Your task to perform on an android device: Open maps Image 0: 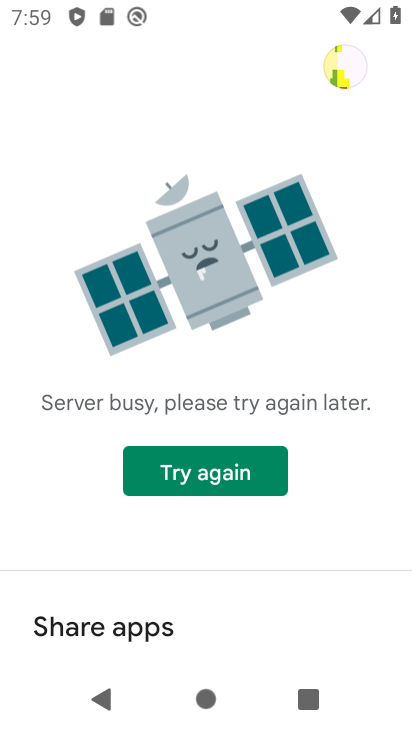
Step 0: press back button
Your task to perform on an android device: Open maps Image 1: 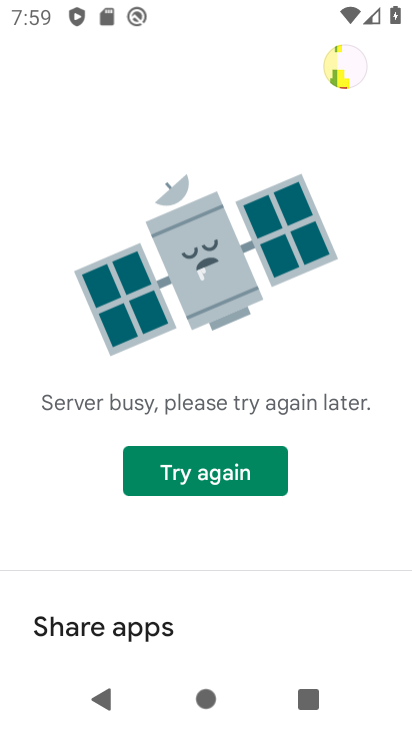
Step 1: press back button
Your task to perform on an android device: Open maps Image 2: 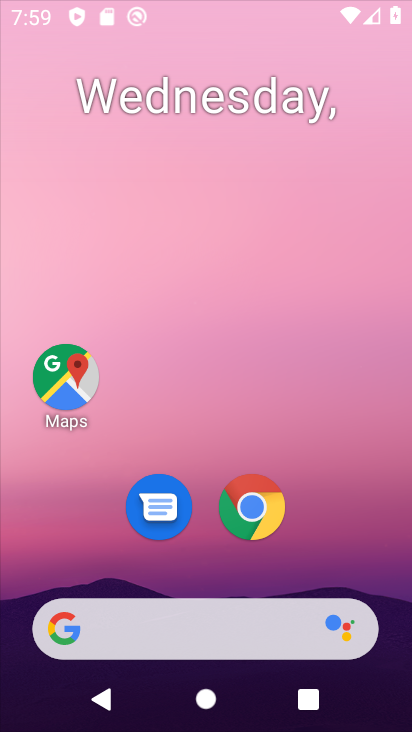
Step 2: press back button
Your task to perform on an android device: Open maps Image 3: 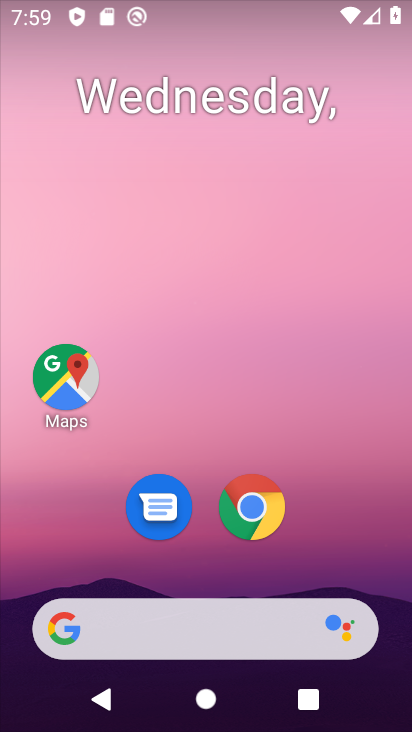
Step 3: press back button
Your task to perform on an android device: Open maps Image 4: 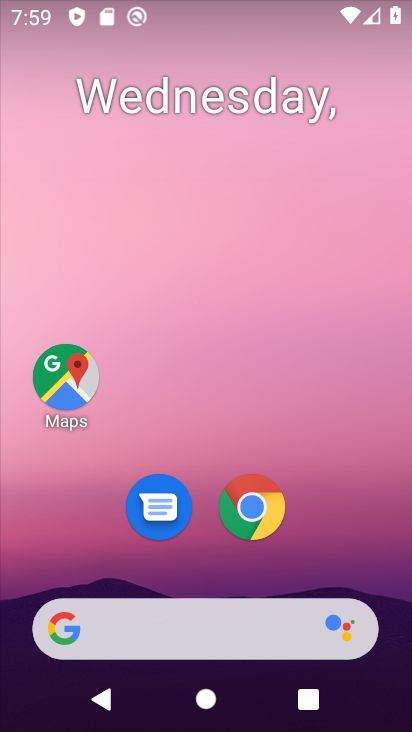
Step 4: click (79, 388)
Your task to perform on an android device: Open maps Image 5: 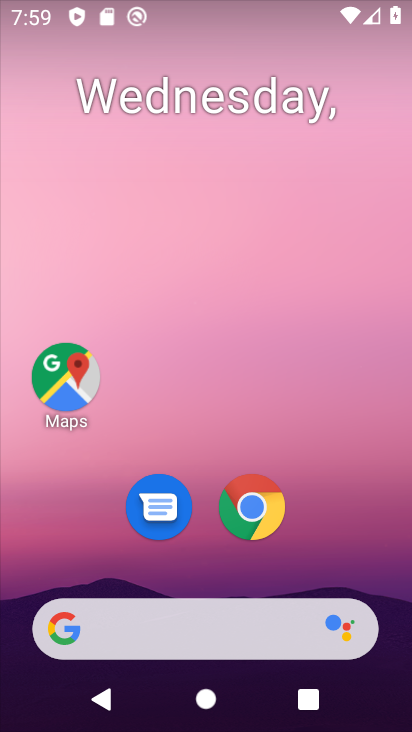
Step 5: click (79, 381)
Your task to perform on an android device: Open maps Image 6: 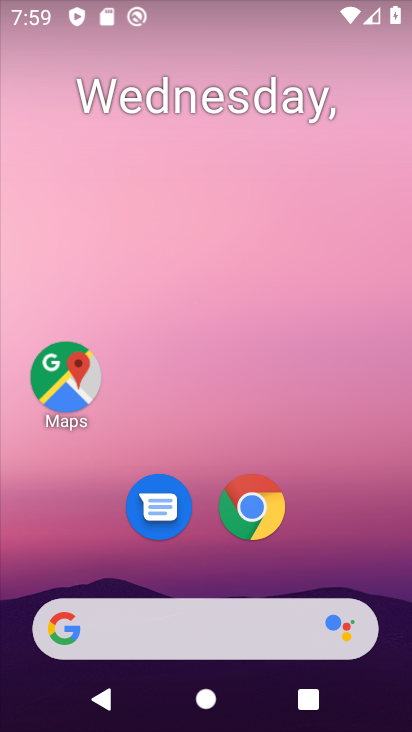
Step 6: click (79, 381)
Your task to perform on an android device: Open maps Image 7: 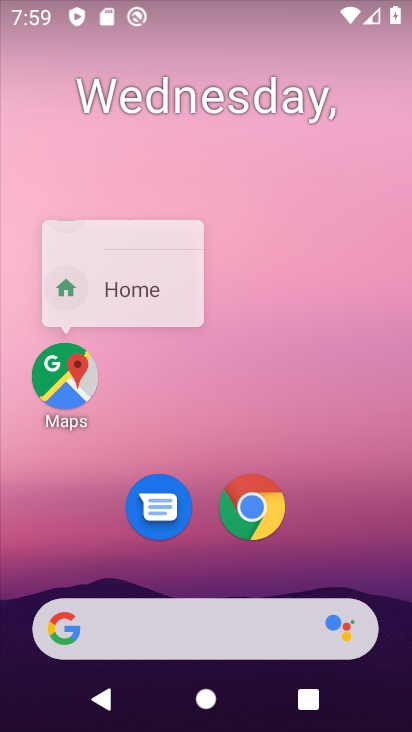
Step 7: click (57, 353)
Your task to perform on an android device: Open maps Image 8: 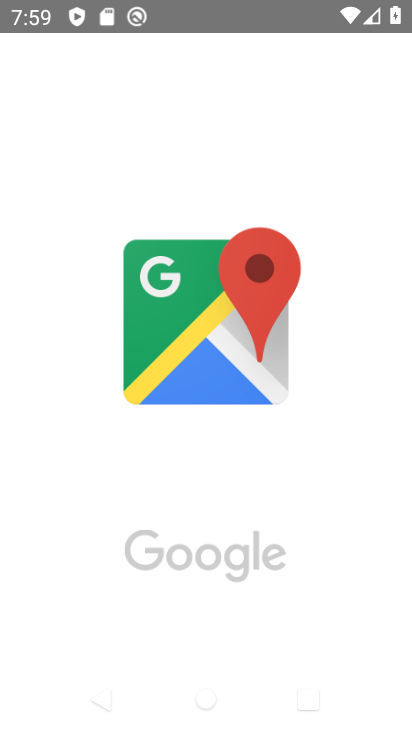
Step 8: click (199, 337)
Your task to perform on an android device: Open maps Image 9: 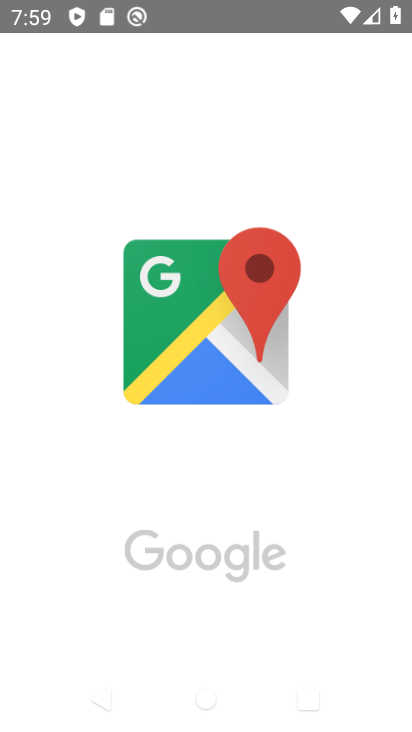
Step 9: click (199, 338)
Your task to perform on an android device: Open maps Image 10: 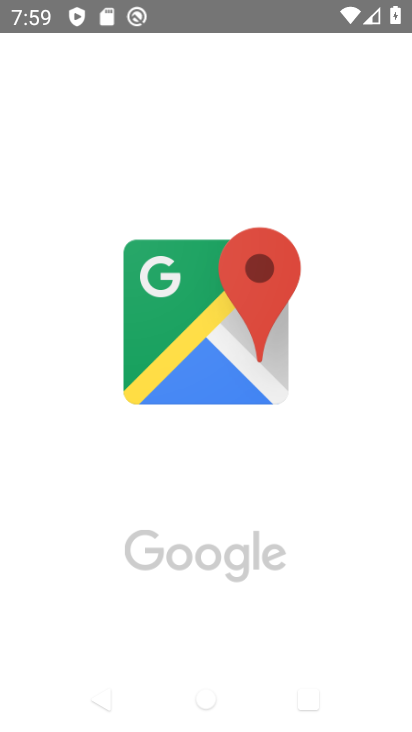
Step 10: click (227, 330)
Your task to perform on an android device: Open maps Image 11: 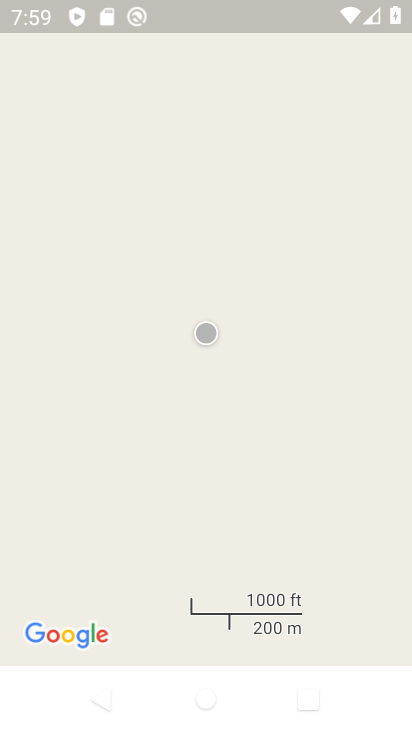
Step 11: task complete